Your task to perform on an android device: View the shopping cart on walmart.com. Add "rayovac triple a" to the cart on walmart.com Image 0: 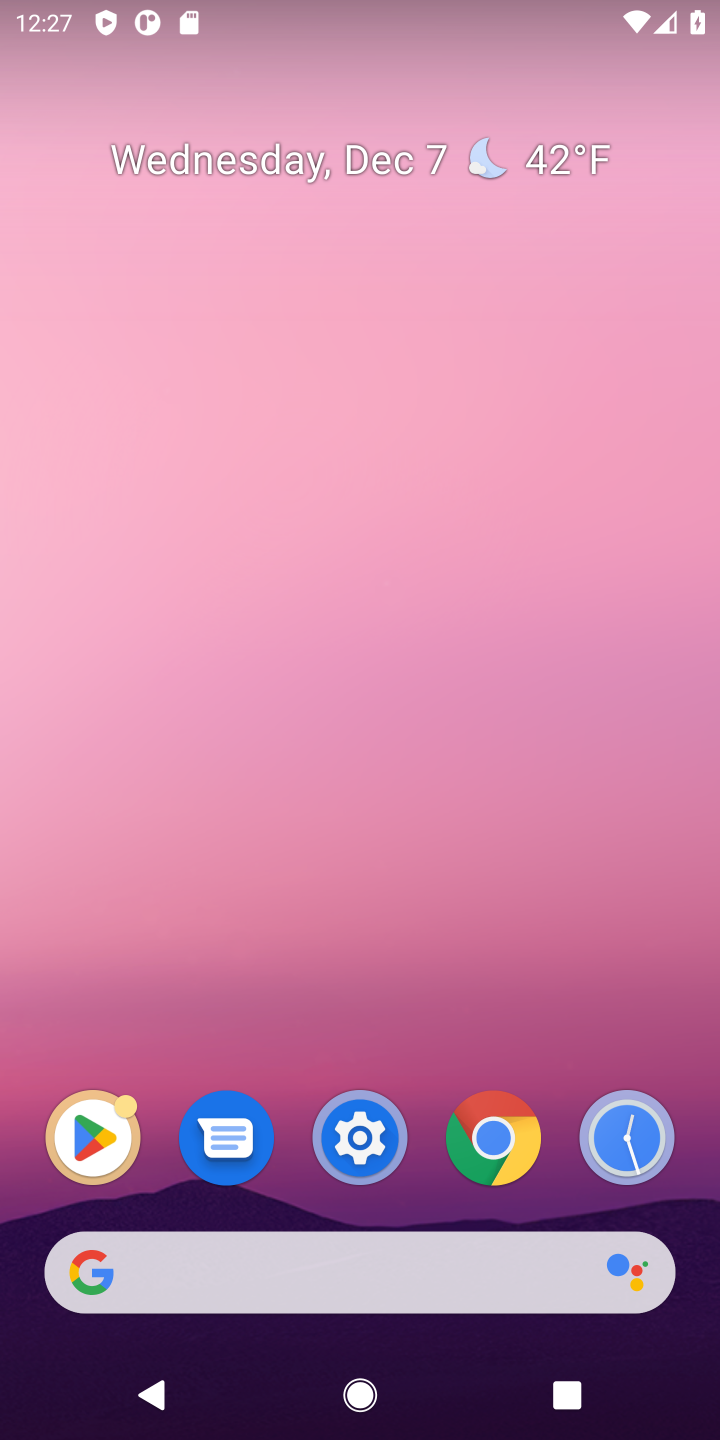
Step 0: click (381, 1263)
Your task to perform on an android device: View the shopping cart on walmart.com. Add "rayovac triple a" to the cart on walmart.com Image 1: 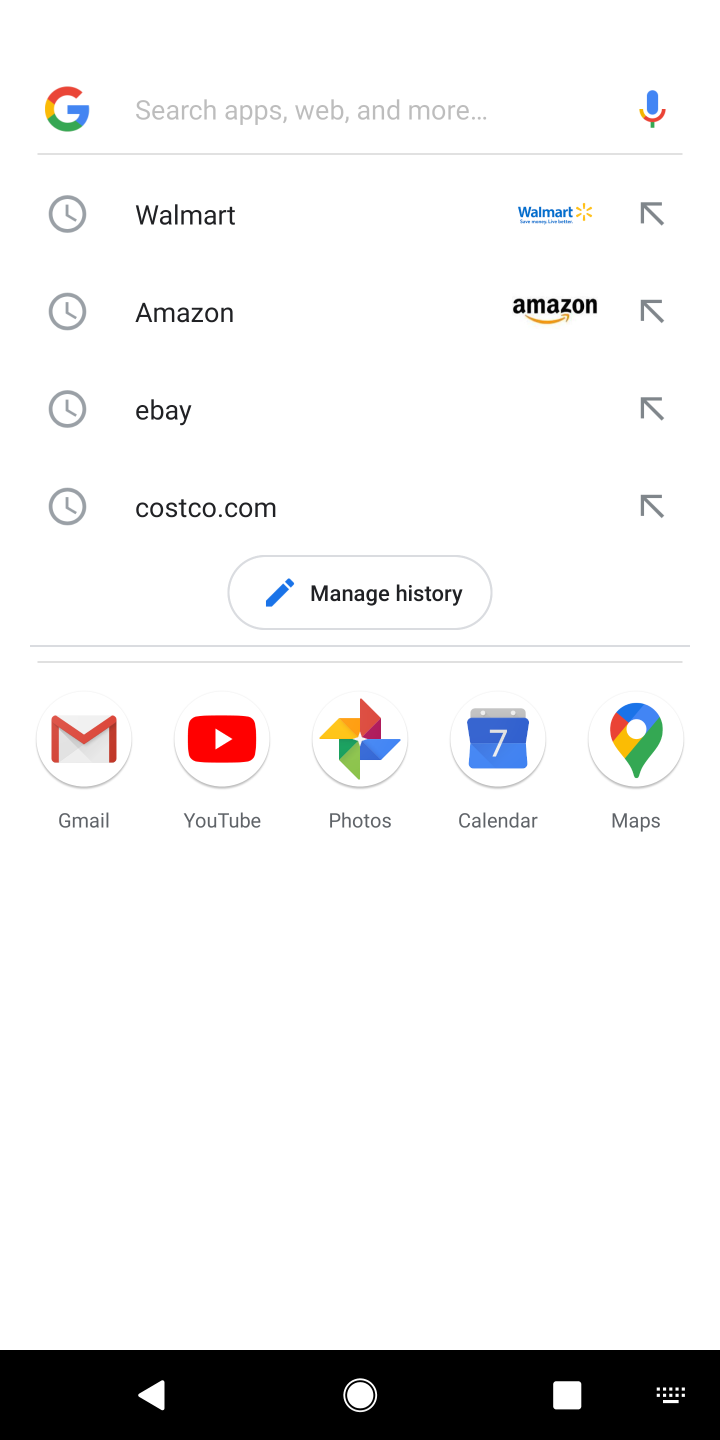
Step 1: click (221, 224)
Your task to perform on an android device: View the shopping cart on walmart.com. Add "rayovac triple a" to the cart on walmart.com Image 2: 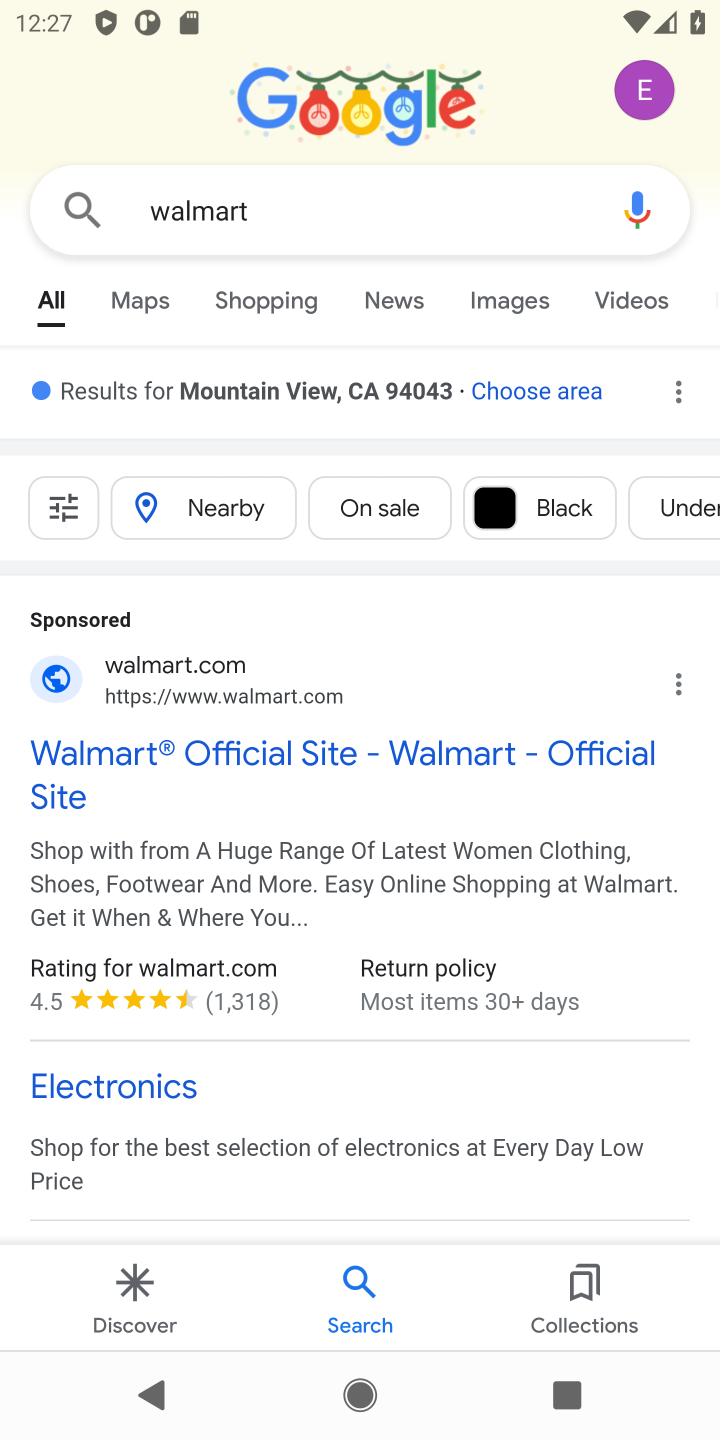
Step 2: click (99, 800)
Your task to perform on an android device: View the shopping cart on walmart.com. Add "rayovac triple a" to the cart on walmart.com Image 3: 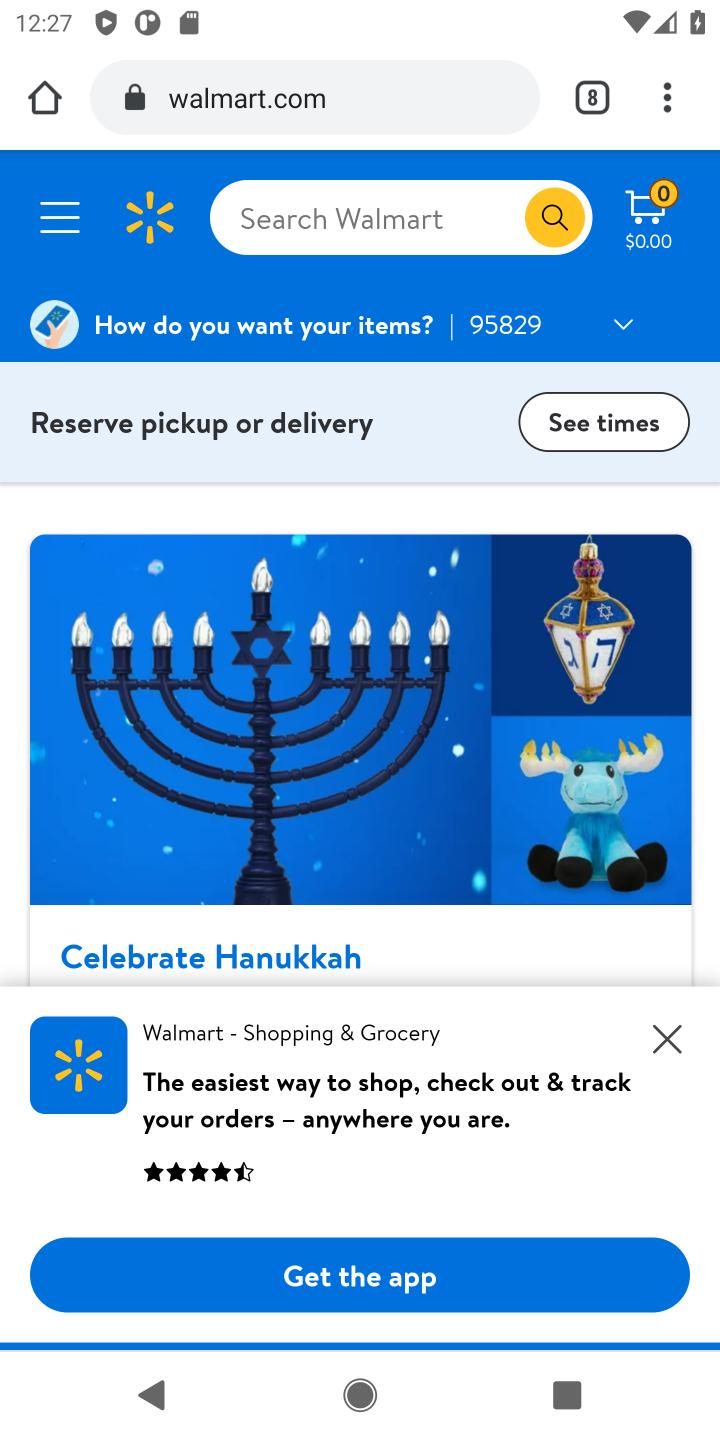
Step 3: click (332, 195)
Your task to perform on an android device: View the shopping cart on walmart.com. Add "rayovac triple a" to the cart on walmart.com Image 4: 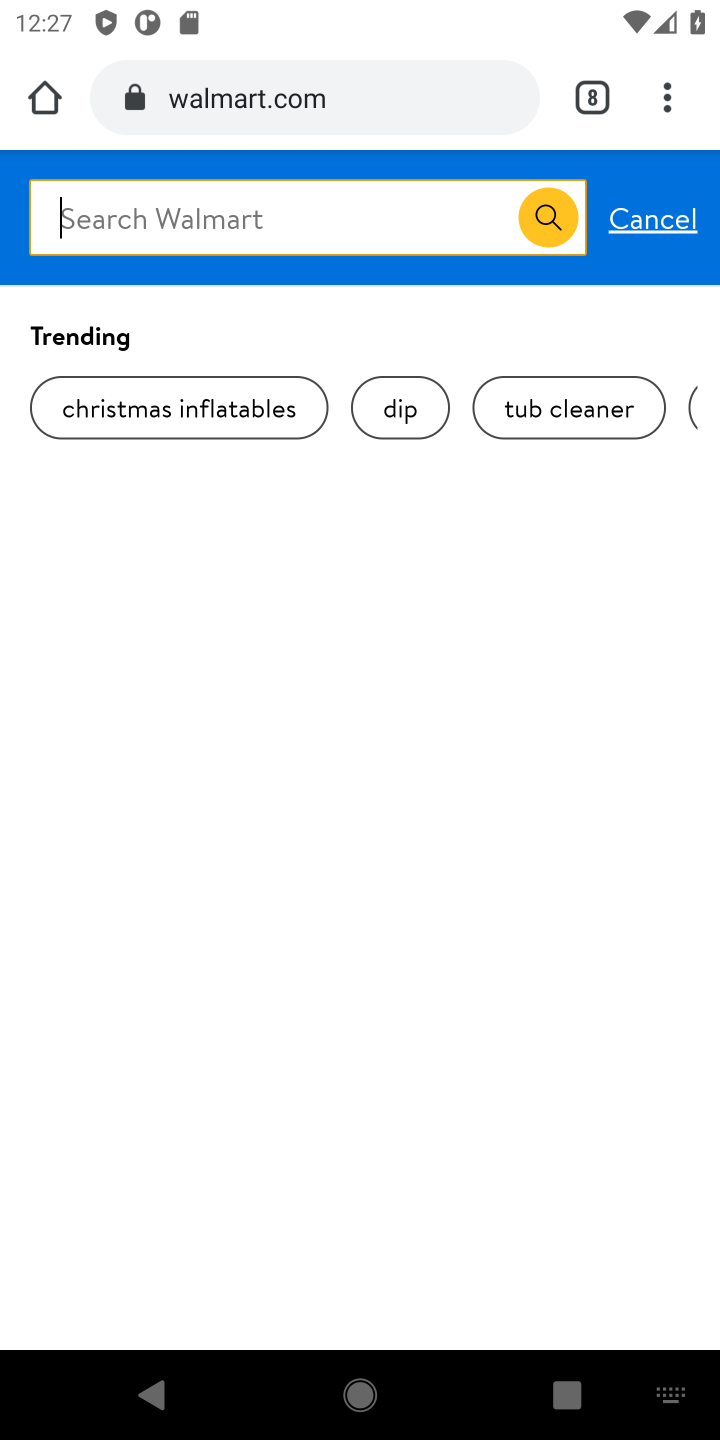
Step 4: type "rayovac"
Your task to perform on an android device: View the shopping cart on walmart.com. Add "rayovac triple a" to the cart on walmart.com Image 5: 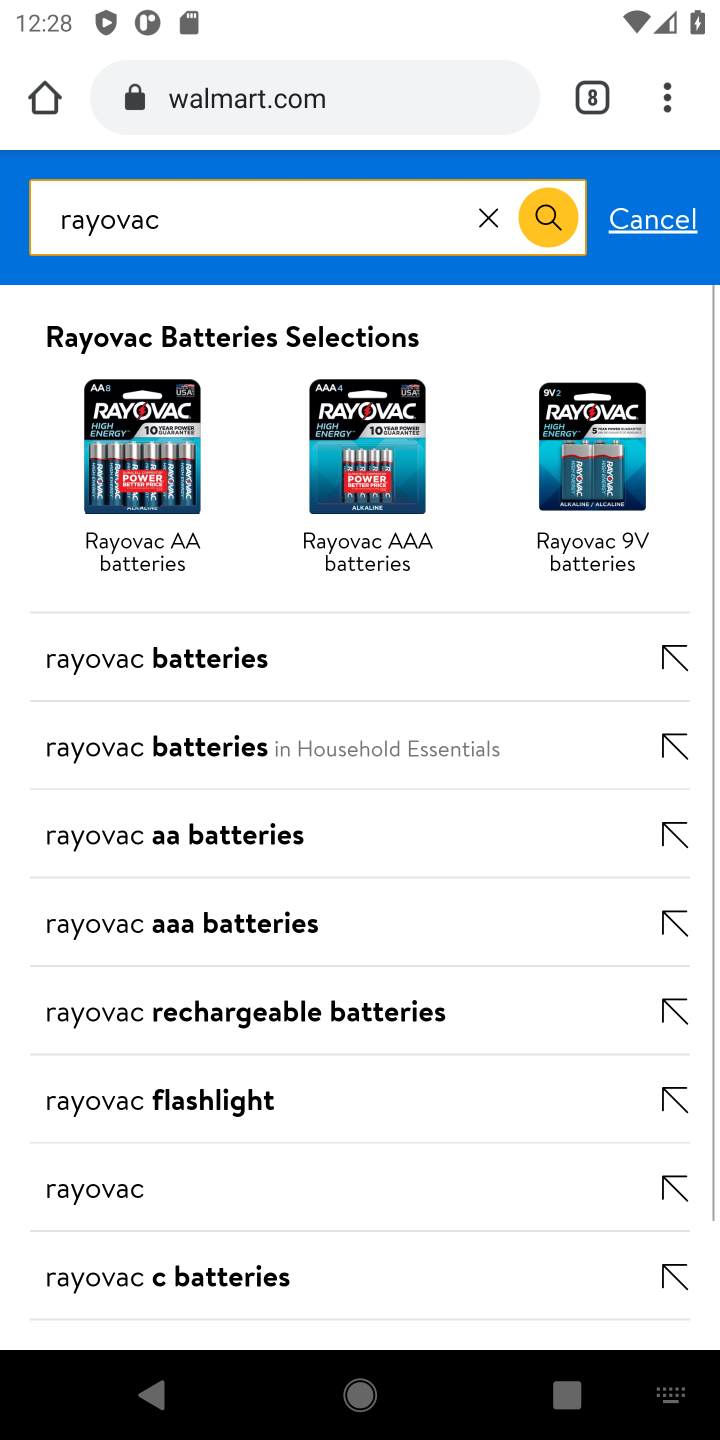
Step 5: click (96, 685)
Your task to perform on an android device: View the shopping cart on walmart.com. Add "rayovac triple a" to the cart on walmart.com Image 6: 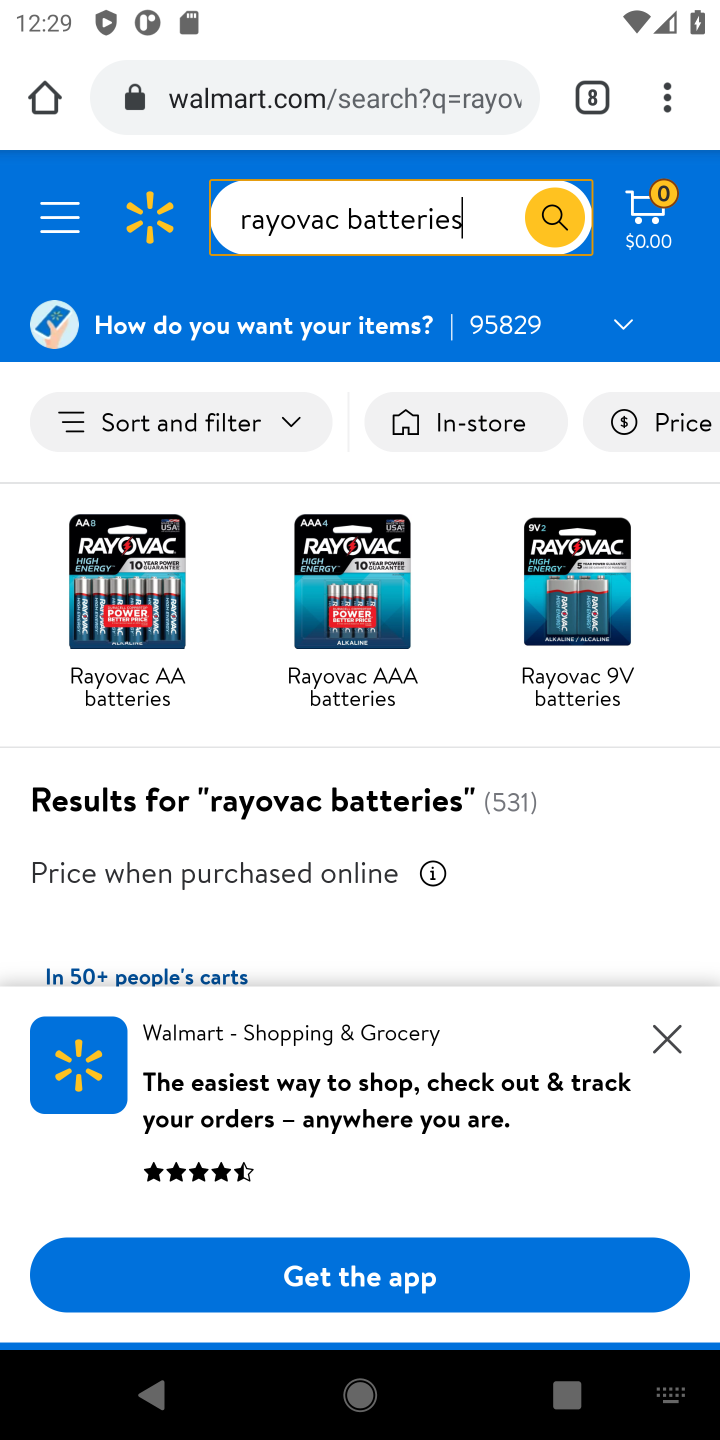
Step 6: click (665, 1047)
Your task to perform on an android device: View the shopping cart on walmart.com. Add "rayovac triple a" to the cart on walmart.com Image 7: 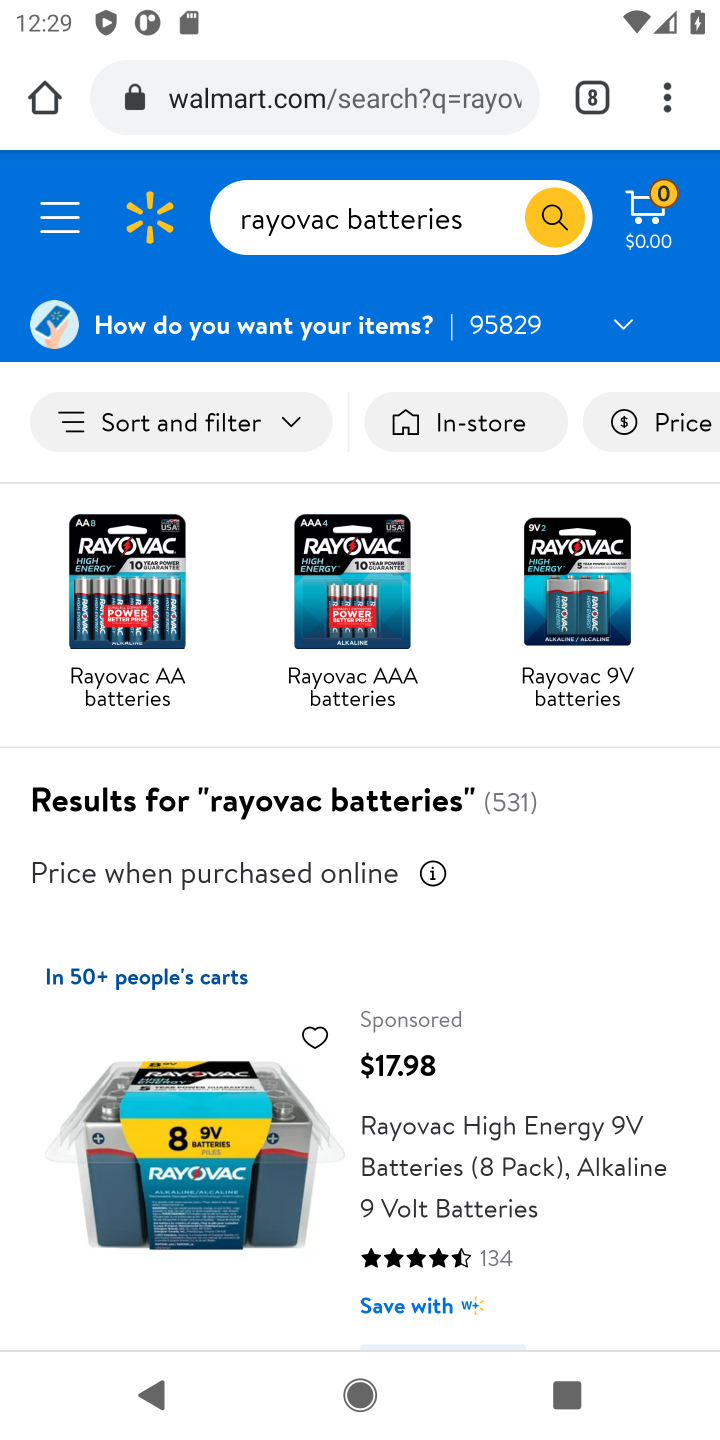
Step 7: click (331, 1172)
Your task to perform on an android device: View the shopping cart on walmart.com. Add "rayovac triple a" to the cart on walmart.com Image 8: 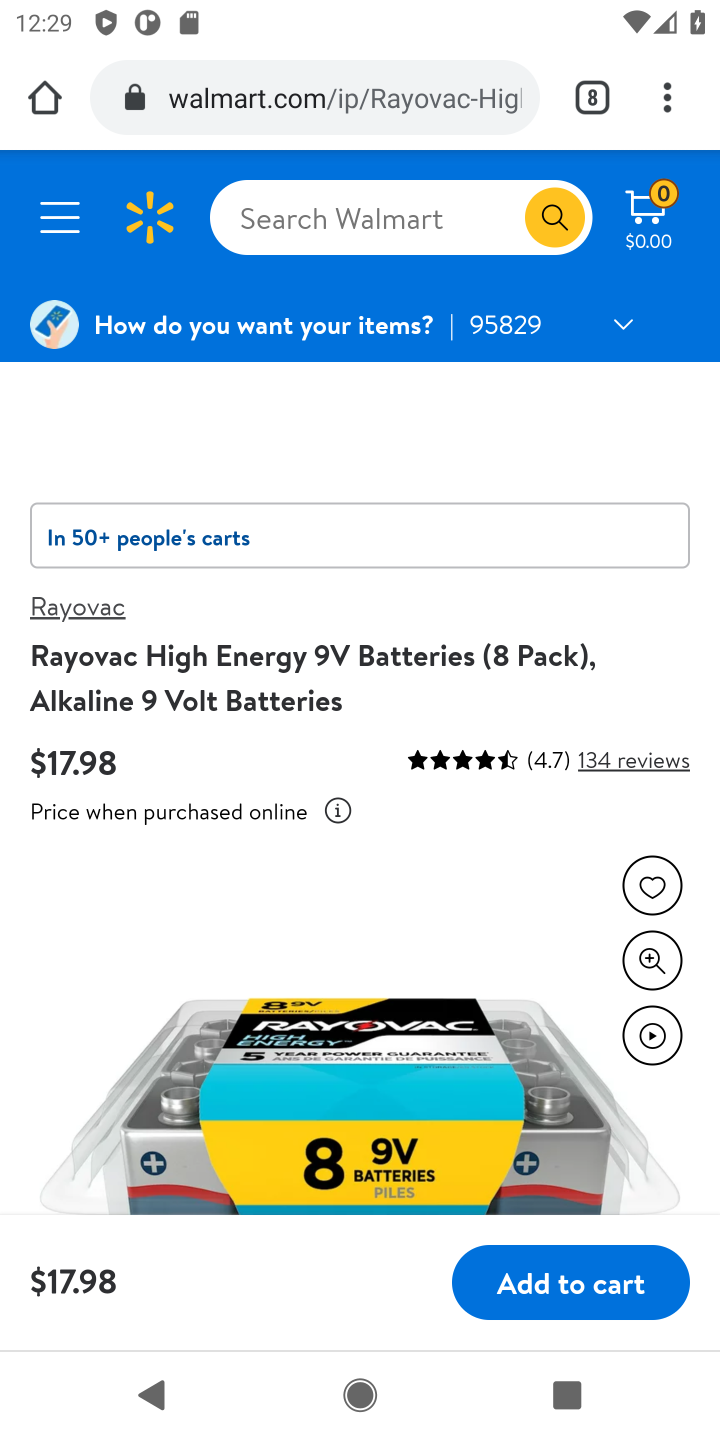
Step 8: click (581, 1308)
Your task to perform on an android device: View the shopping cart on walmart.com. Add "rayovac triple a" to the cart on walmart.com Image 9: 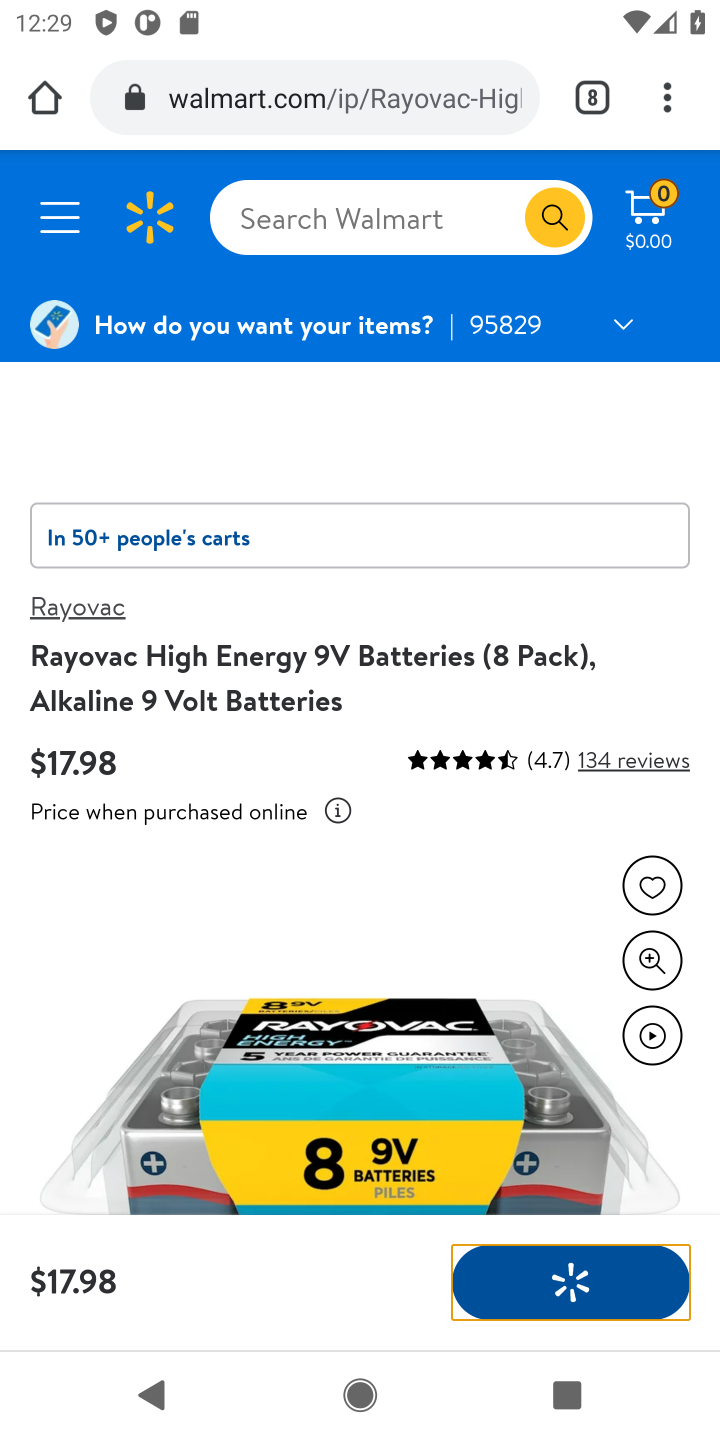
Step 9: task complete